Your task to perform on an android device: Show me popular videos on Youtube Image 0: 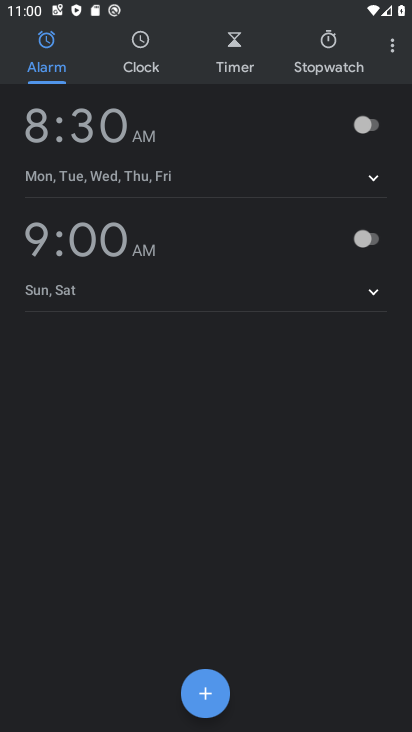
Step 0: press home button
Your task to perform on an android device: Show me popular videos on Youtube Image 1: 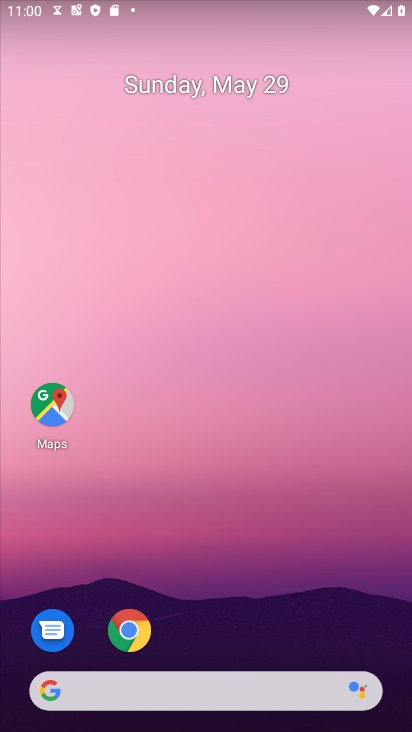
Step 1: drag from (318, 610) to (332, 97)
Your task to perform on an android device: Show me popular videos on Youtube Image 2: 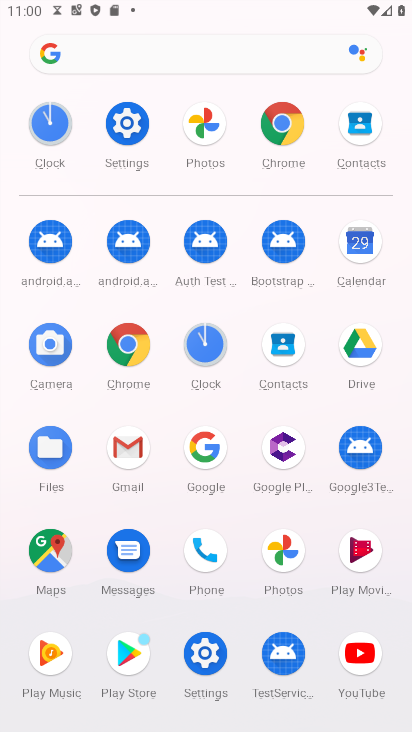
Step 2: click (383, 656)
Your task to perform on an android device: Show me popular videos on Youtube Image 3: 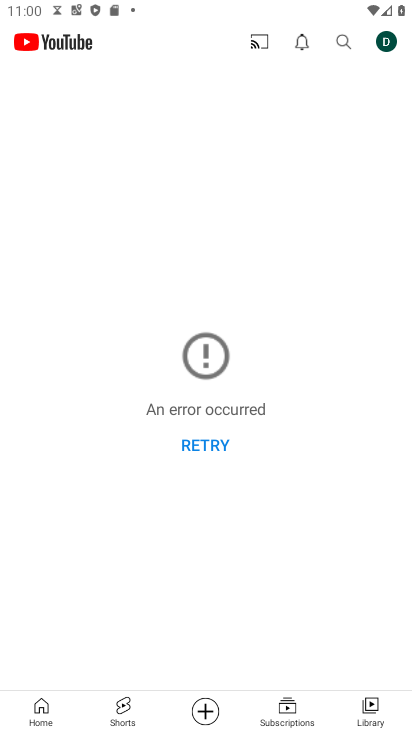
Step 3: click (190, 440)
Your task to perform on an android device: Show me popular videos on Youtube Image 4: 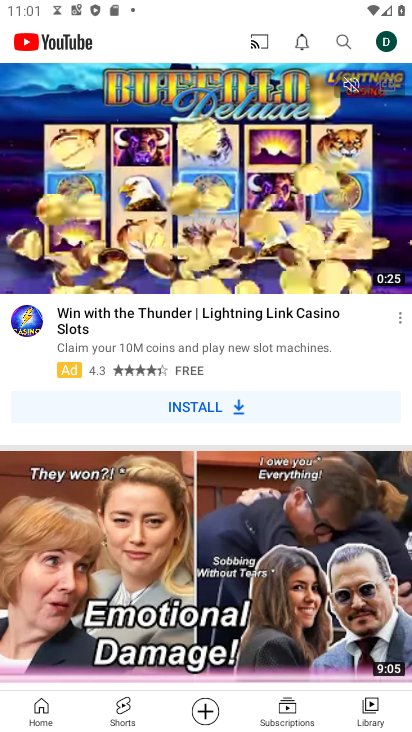
Step 4: click (338, 38)
Your task to perform on an android device: Show me popular videos on Youtube Image 5: 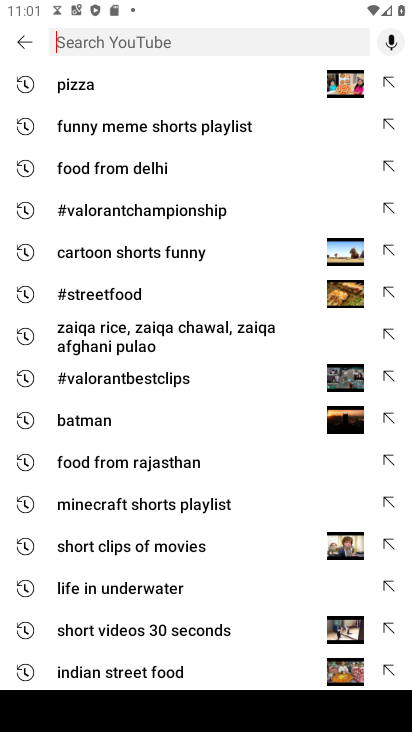
Step 5: type "popular videos"
Your task to perform on an android device: Show me popular videos on Youtube Image 6: 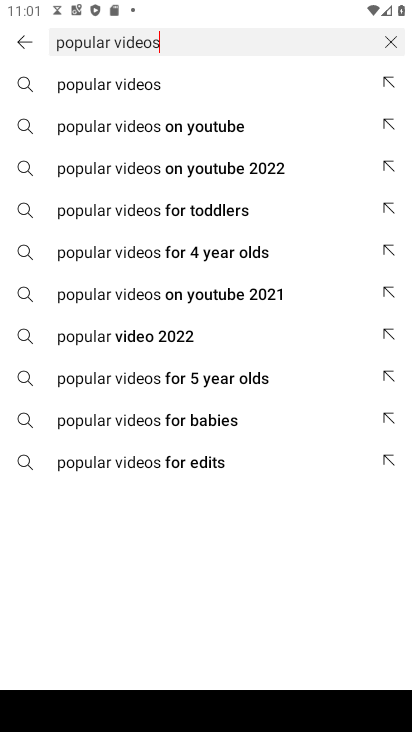
Step 6: click (237, 76)
Your task to perform on an android device: Show me popular videos on Youtube Image 7: 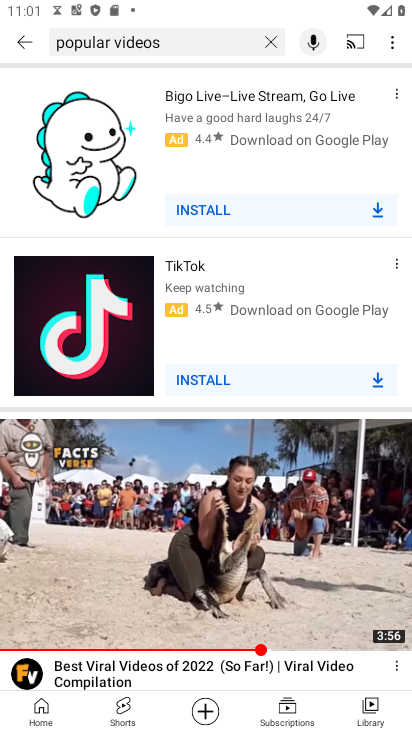
Step 7: click (318, 575)
Your task to perform on an android device: Show me popular videos on Youtube Image 8: 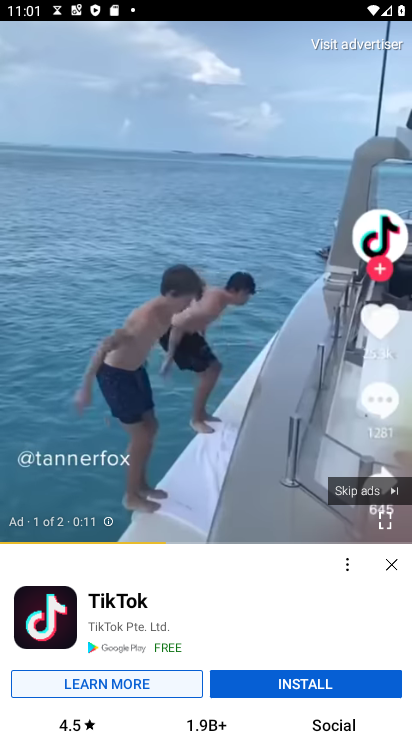
Step 8: click (398, 494)
Your task to perform on an android device: Show me popular videos on Youtube Image 9: 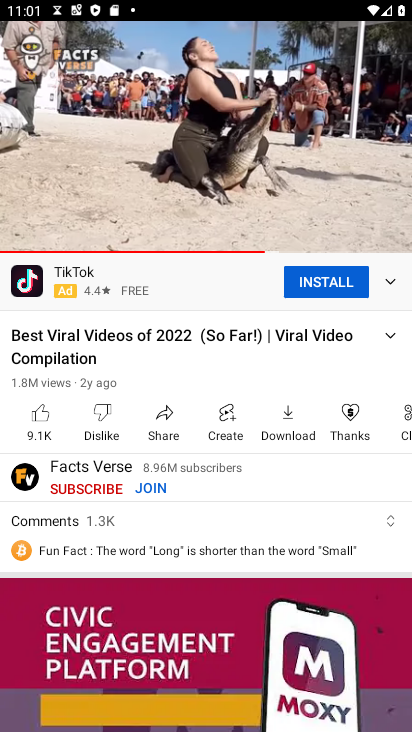
Step 9: task complete